Your task to perform on an android device: check google app version Image 0: 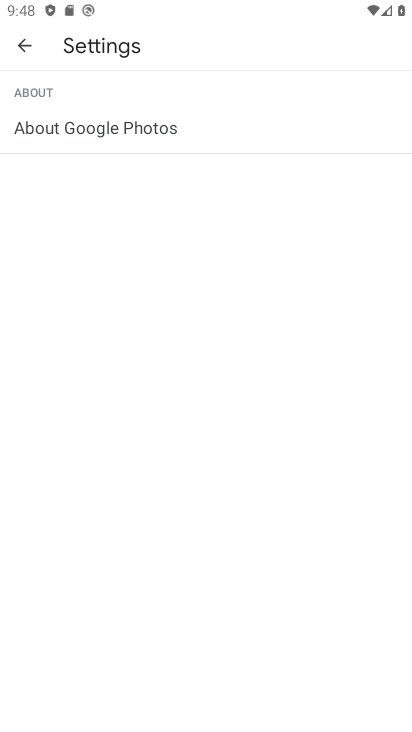
Step 0: press home button
Your task to perform on an android device: check google app version Image 1: 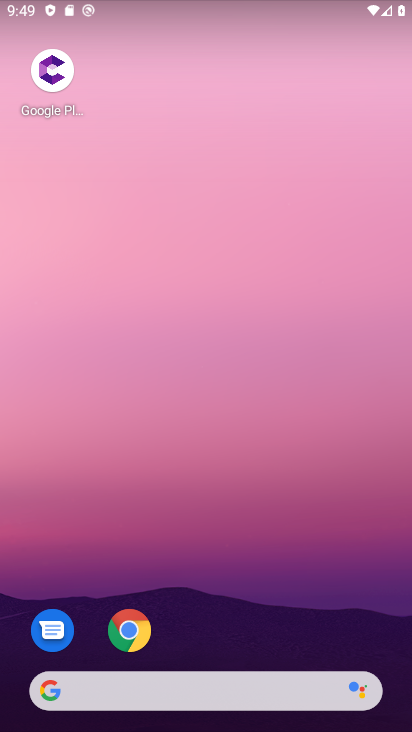
Step 1: drag from (254, 568) to (276, 15)
Your task to perform on an android device: check google app version Image 2: 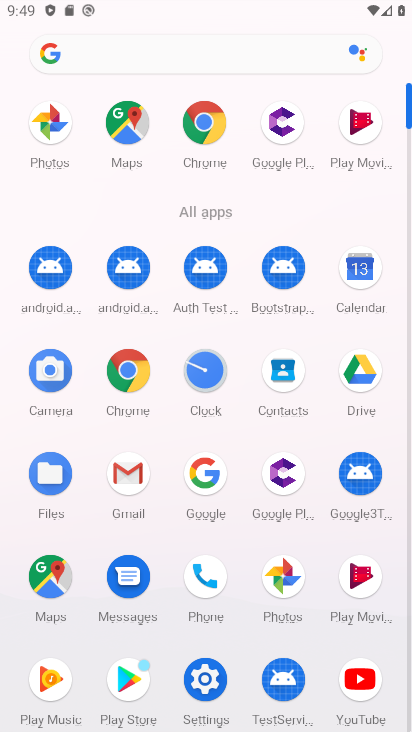
Step 2: click (199, 479)
Your task to perform on an android device: check google app version Image 3: 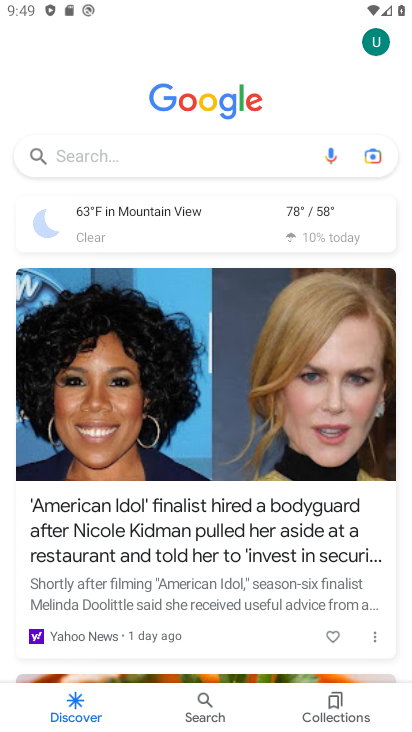
Step 3: click (377, 37)
Your task to perform on an android device: check google app version Image 4: 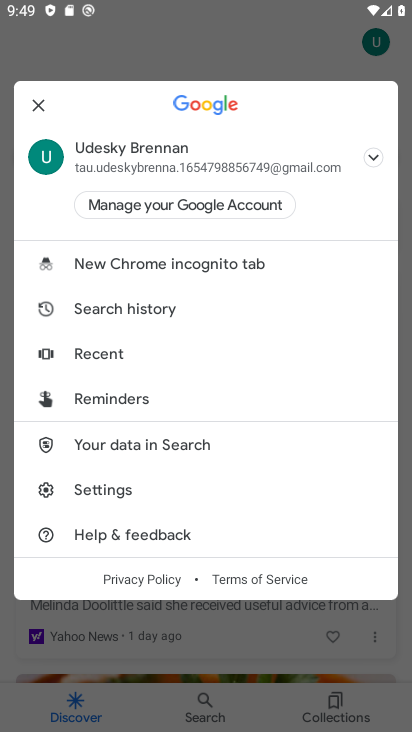
Step 4: click (99, 487)
Your task to perform on an android device: check google app version Image 5: 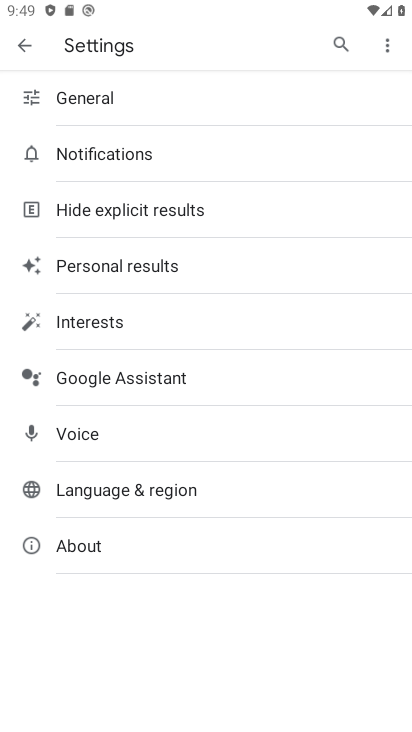
Step 5: click (127, 538)
Your task to perform on an android device: check google app version Image 6: 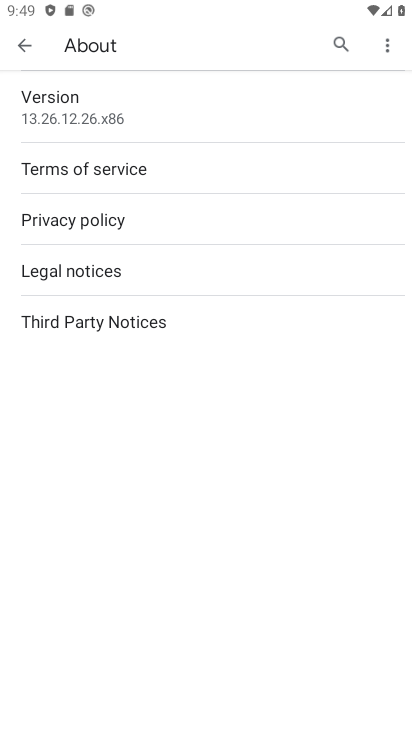
Step 6: click (75, 91)
Your task to perform on an android device: check google app version Image 7: 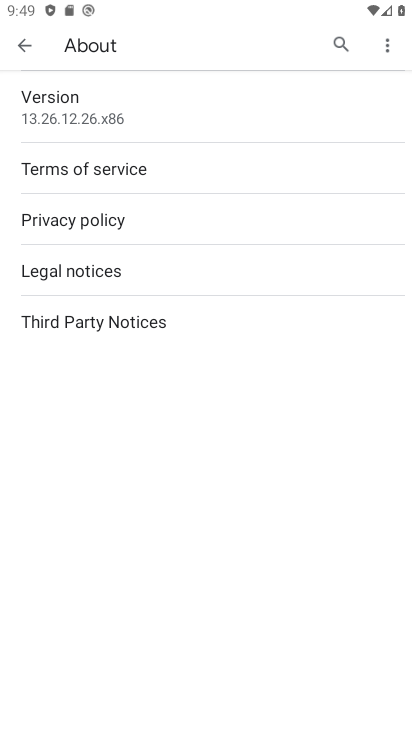
Step 7: task complete